Your task to perform on an android device: Search for seafood restaurants on Google Maps Image 0: 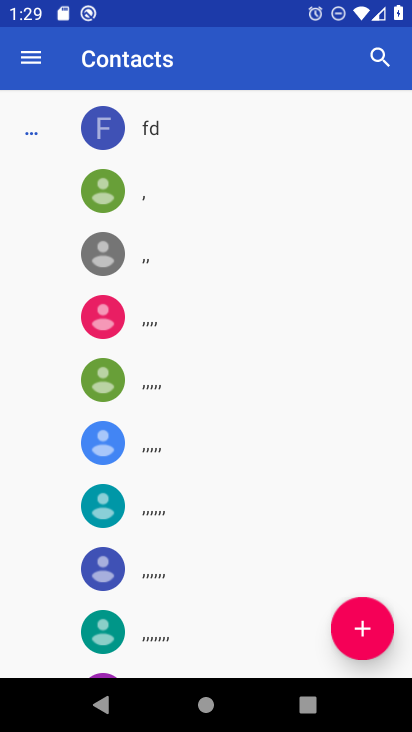
Step 0: press home button
Your task to perform on an android device: Search for seafood restaurants on Google Maps Image 1: 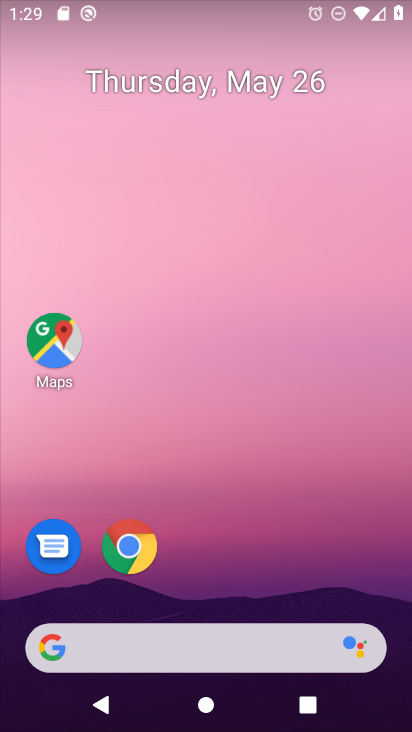
Step 1: click (39, 344)
Your task to perform on an android device: Search for seafood restaurants on Google Maps Image 2: 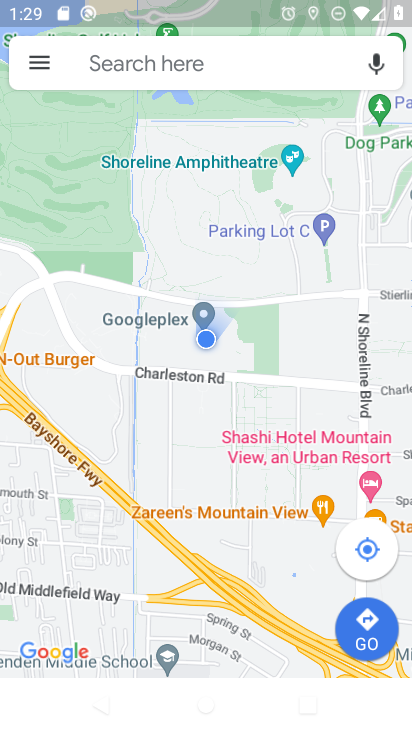
Step 2: click (166, 62)
Your task to perform on an android device: Search for seafood restaurants on Google Maps Image 3: 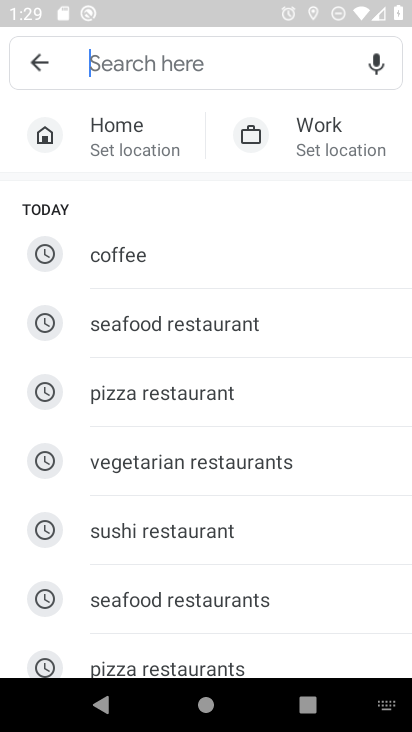
Step 3: click (124, 604)
Your task to perform on an android device: Search for seafood restaurants on Google Maps Image 4: 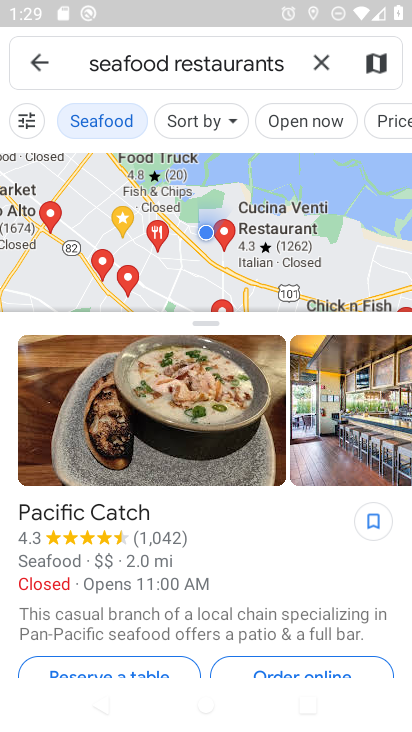
Step 4: task complete